Your task to perform on an android device: Open internet settings Image 0: 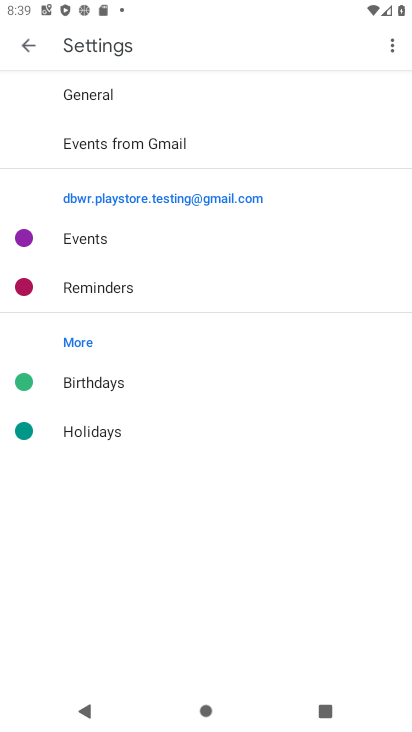
Step 0: press home button
Your task to perform on an android device: Open internet settings Image 1: 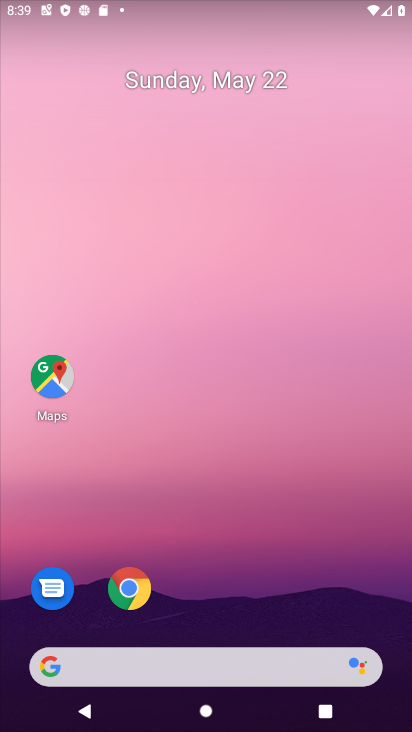
Step 1: drag from (287, 520) to (216, 26)
Your task to perform on an android device: Open internet settings Image 2: 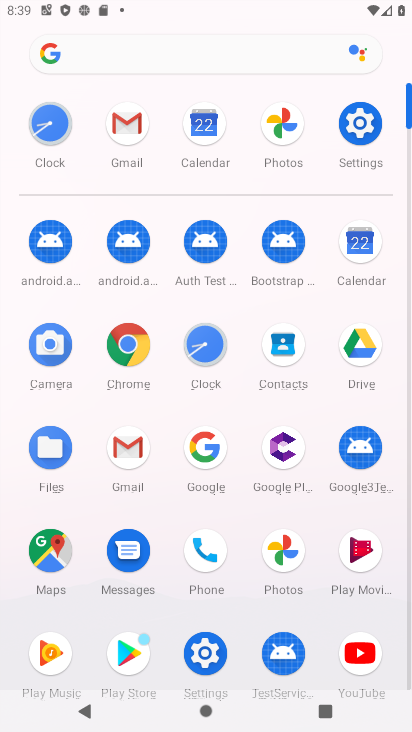
Step 2: click (365, 127)
Your task to perform on an android device: Open internet settings Image 3: 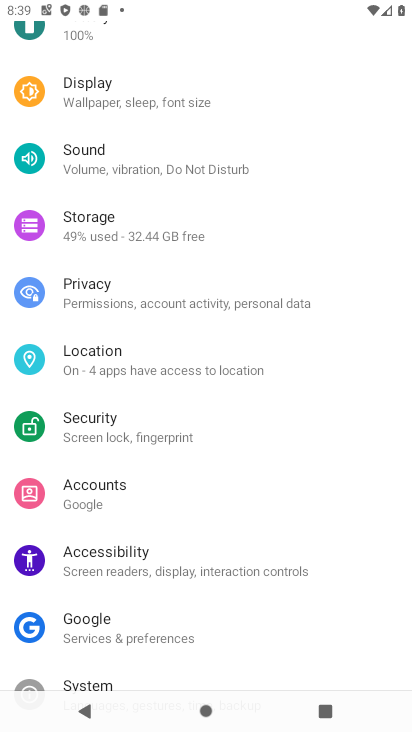
Step 3: drag from (317, 149) to (271, 720)
Your task to perform on an android device: Open internet settings Image 4: 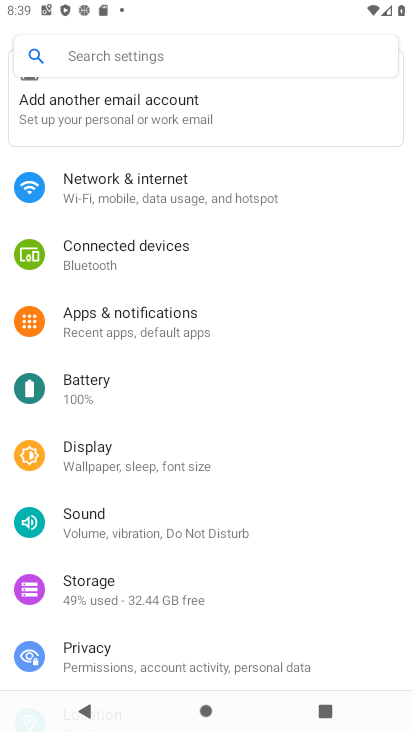
Step 4: click (134, 171)
Your task to perform on an android device: Open internet settings Image 5: 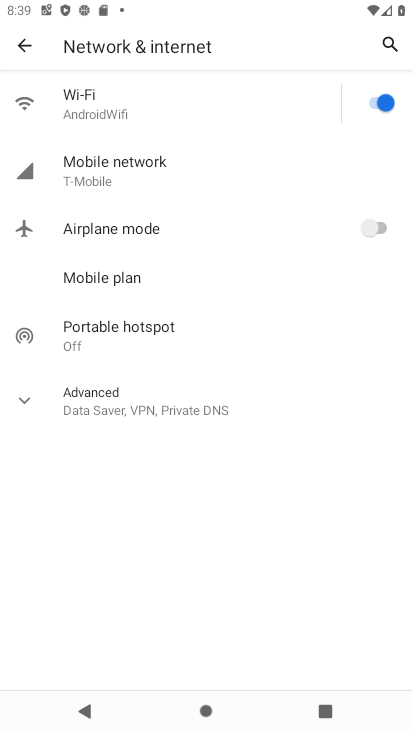
Step 5: click (118, 166)
Your task to perform on an android device: Open internet settings Image 6: 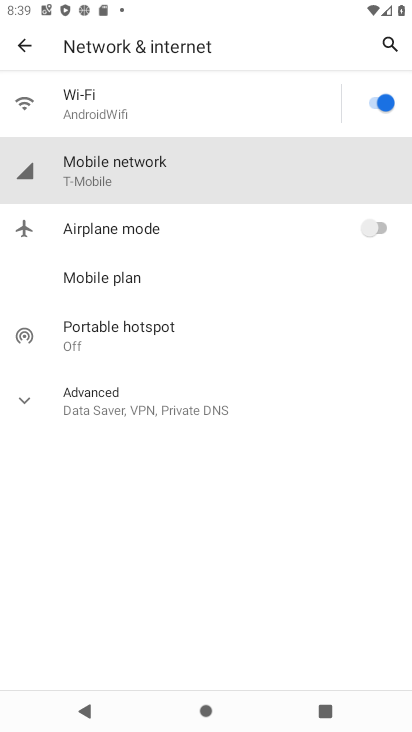
Step 6: click (94, 149)
Your task to perform on an android device: Open internet settings Image 7: 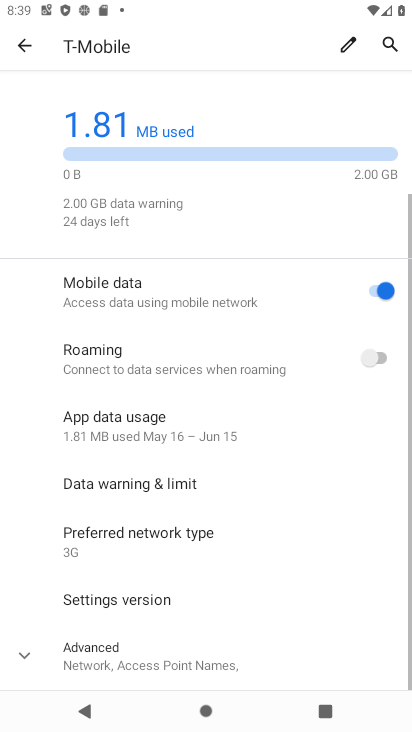
Step 7: task complete